Your task to perform on an android device: Open sound settings Image 0: 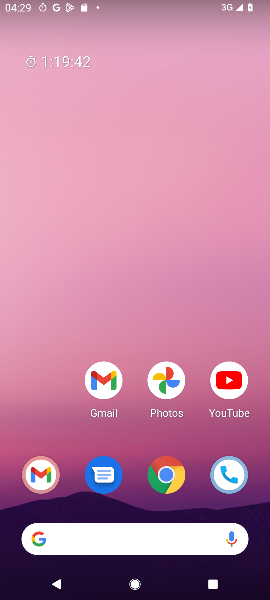
Step 0: press home button
Your task to perform on an android device: Open sound settings Image 1: 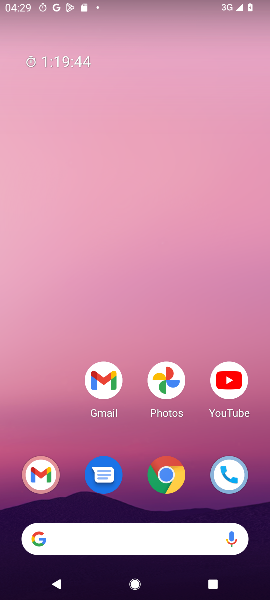
Step 1: drag from (58, 425) to (57, 198)
Your task to perform on an android device: Open sound settings Image 2: 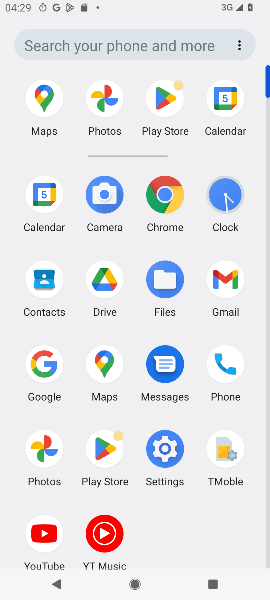
Step 2: click (170, 452)
Your task to perform on an android device: Open sound settings Image 3: 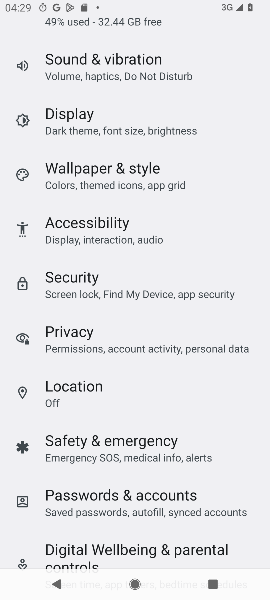
Step 3: drag from (241, 219) to (249, 302)
Your task to perform on an android device: Open sound settings Image 4: 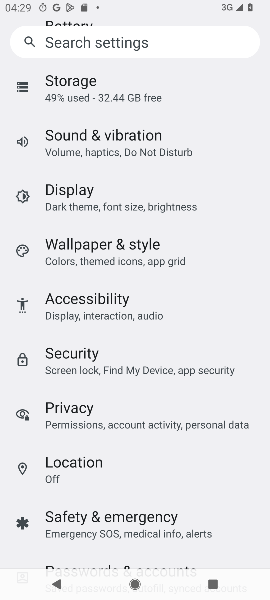
Step 4: drag from (235, 214) to (231, 301)
Your task to perform on an android device: Open sound settings Image 5: 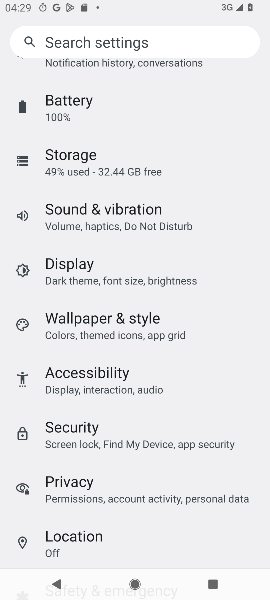
Step 5: drag from (233, 165) to (227, 300)
Your task to perform on an android device: Open sound settings Image 6: 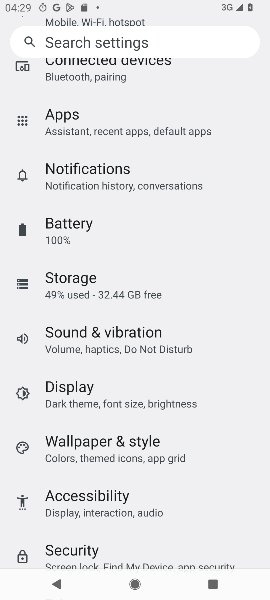
Step 6: drag from (228, 131) to (237, 358)
Your task to perform on an android device: Open sound settings Image 7: 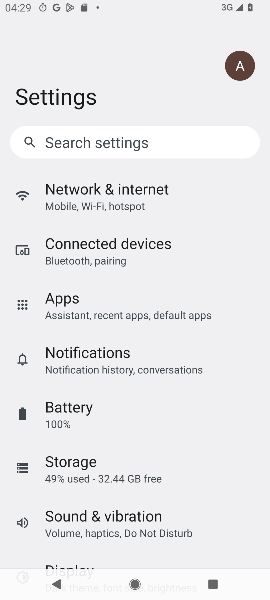
Step 7: click (157, 523)
Your task to perform on an android device: Open sound settings Image 8: 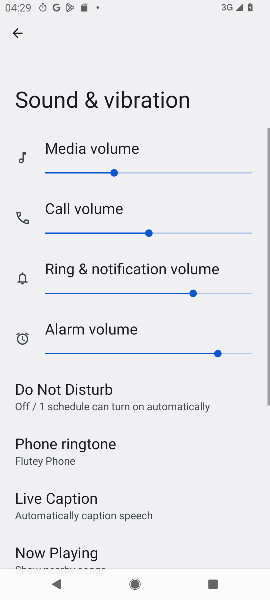
Step 8: task complete